Your task to perform on an android device: Open sound settings Image 0: 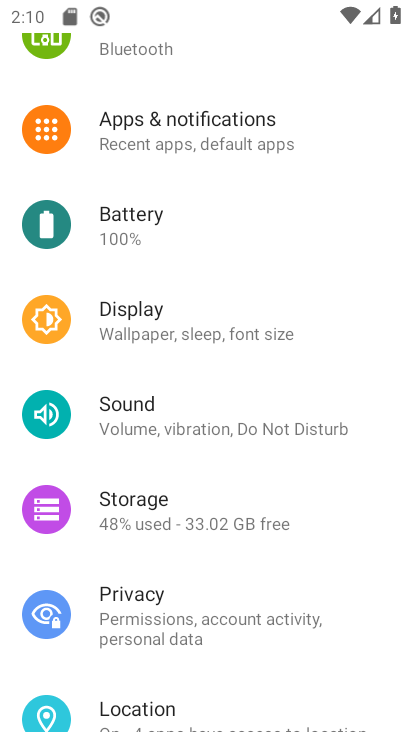
Step 0: click (169, 432)
Your task to perform on an android device: Open sound settings Image 1: 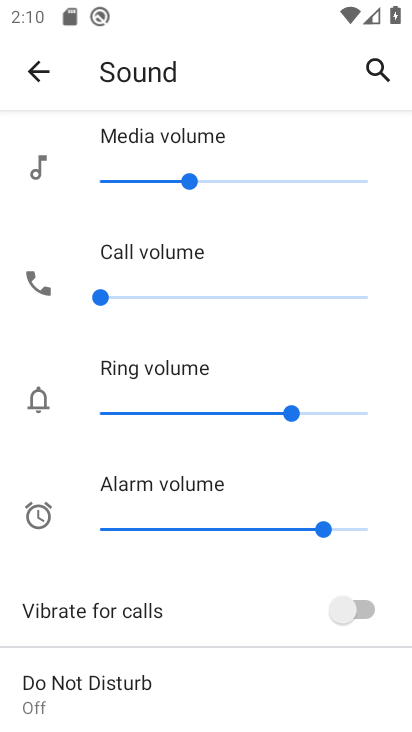
Step 1: task complete